Your task to perform on an android device: Open Amazon Image 0: 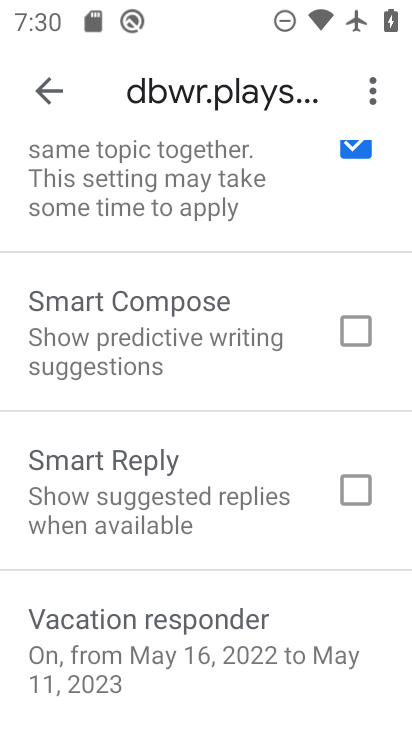
Step 0: click (43, 99)
Your task to perform on an android device: Open Amazon Image 1: 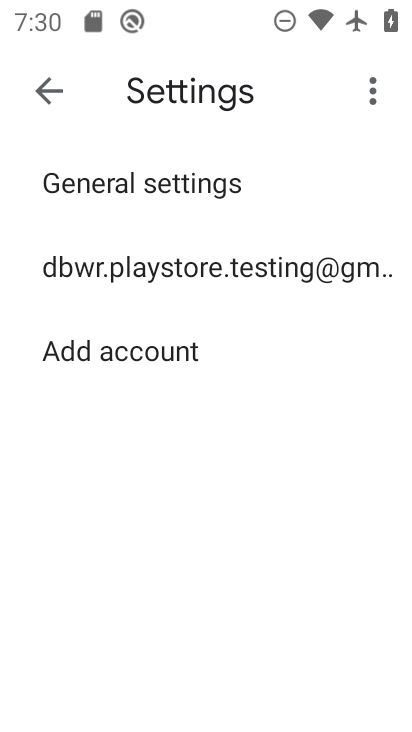
Step 1: click (51, 95)
Your task to perform on an android device: Open Amazon Image 2: 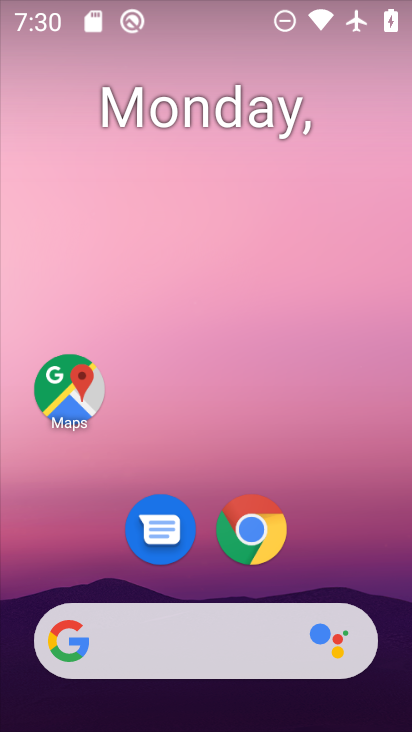
Step 2: click (244, 525)
Your task to perform on an android device: Open Amazon Image 3: 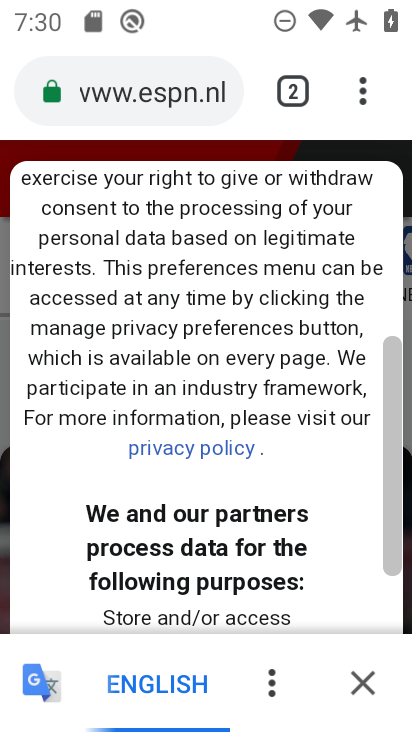
Step 3: click (360, 88)
Your task to perform on an android device: Open Amazon Image 4: 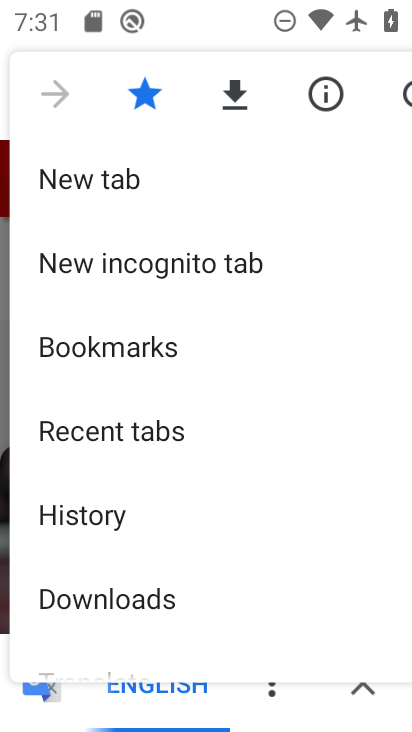
Step 4: click (119, 177)
Your task to perform on an android device: Open Amazon Image 5: 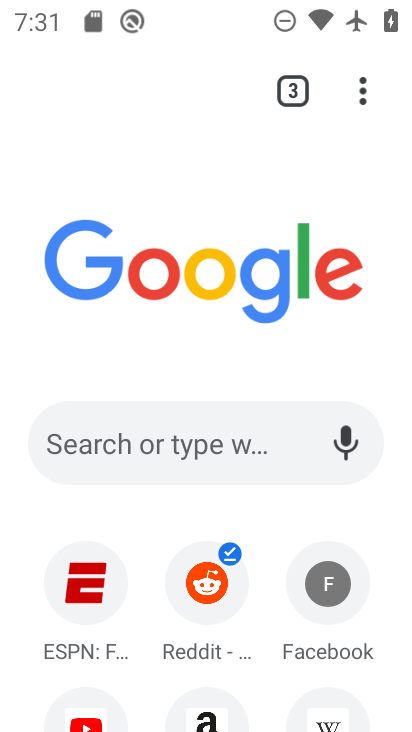
Step 5: drag from (264, 511) to (184, 206)
Your task to perform on an android device: Open Amazon Image 6: 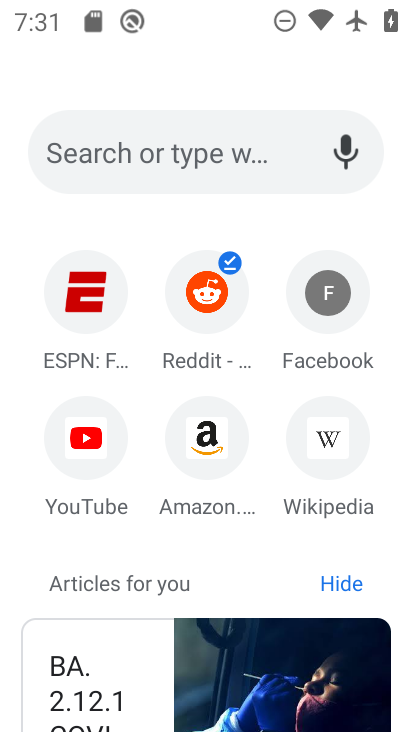
Step 6: click (196, 438)
Your task to perform on an android device: Open Amazon Image 7: 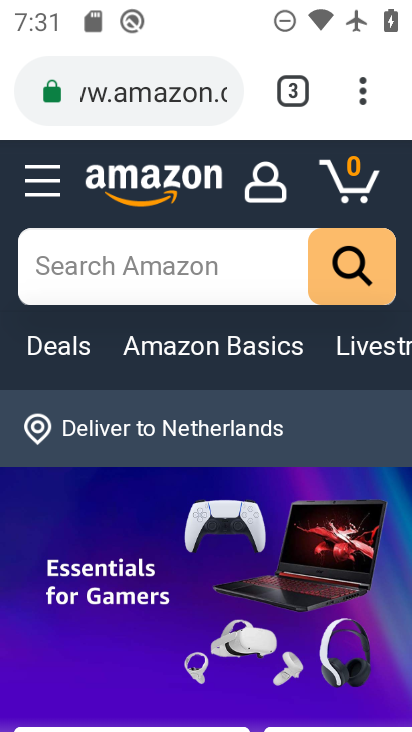
Step 7: task complete